Your task to perform on an android device: Open notification settings Image 0: 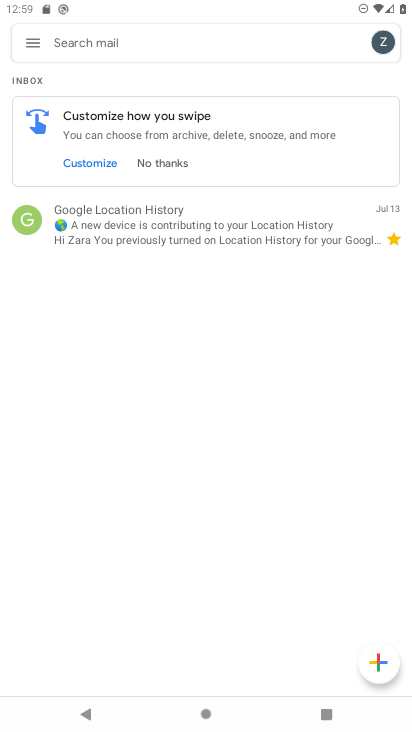
Step 0: press home button
Your task to perform on an android device: Open notification settings Image 1: 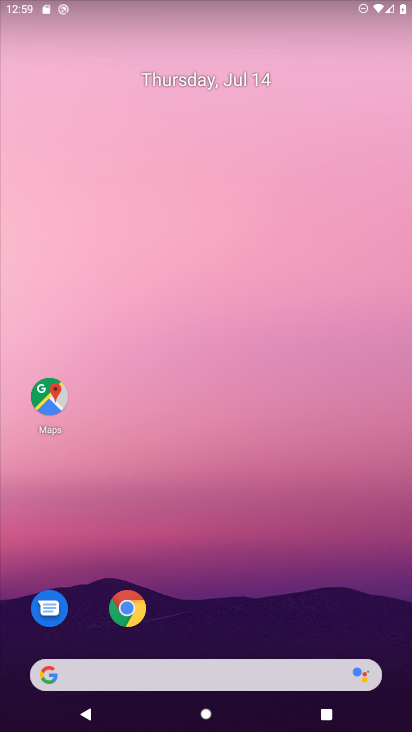
Step 1: drag from (236, 712) to (250, 0)
Your task to perform on an android device: Open notification settings Image 2: 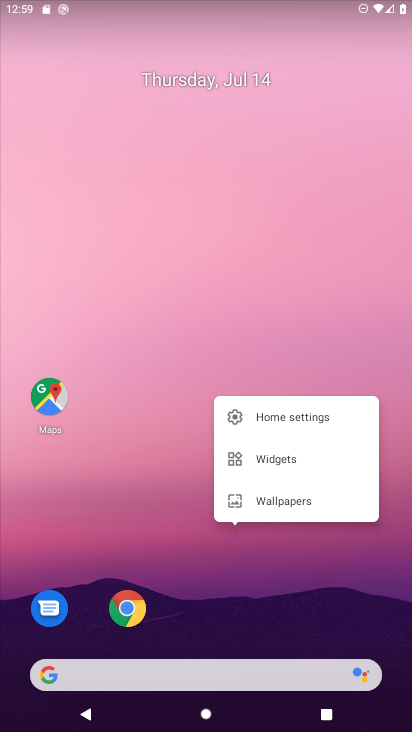
Step 2: click (291, 284)
Your task to perform on an android device: Open notification settings Image 3: 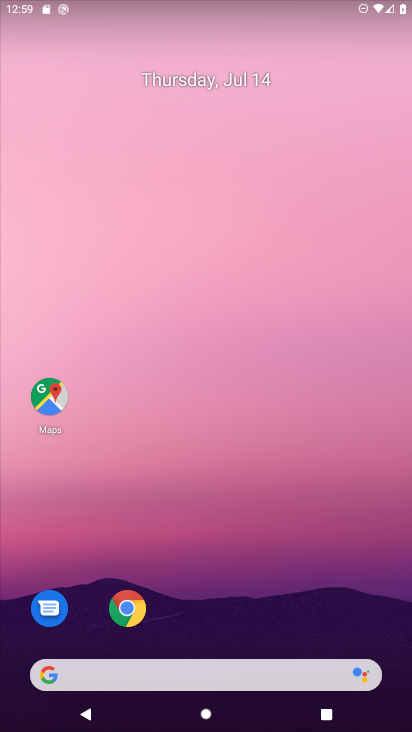
Step 3: drag from (233, 729) to (235, 76)
Your task to perform on an android device: Open notification settings Image 4: 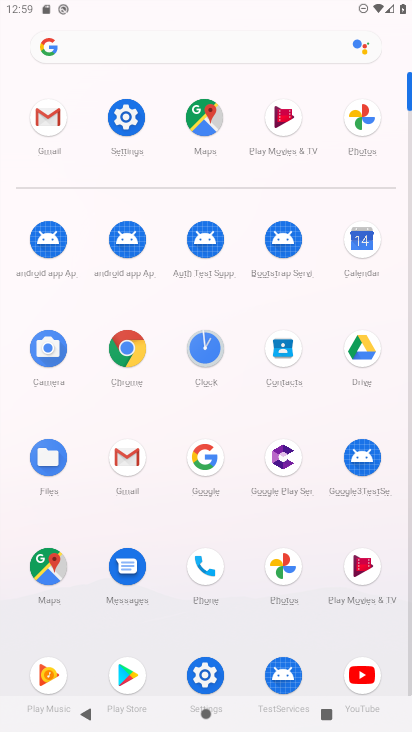
Step 4: click (126, 124)
Your task to perform on an android device: Open notification settings Image 5: 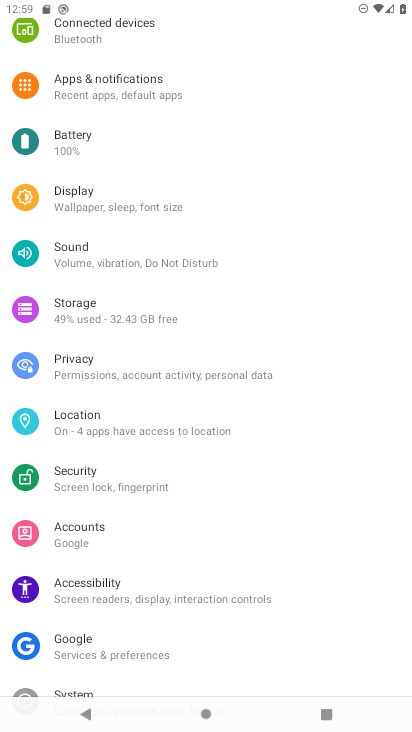
Step 5: click (96, 91)
Your task to perform on an android device: Open notification settings Image 6: 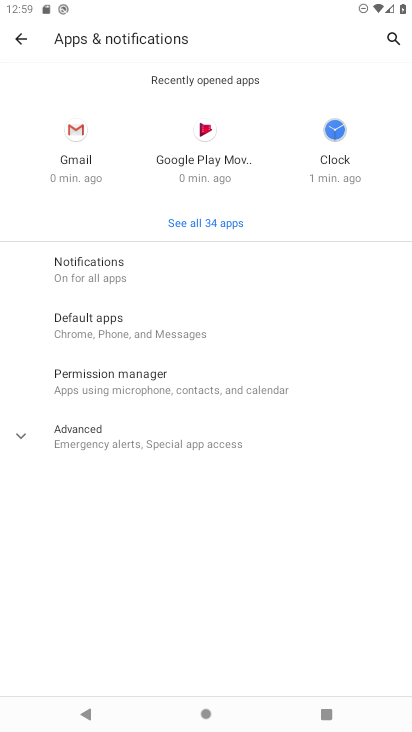
Step 6: click (103, 269)
Your task to perform on an android device: Open notification settings Image 7: 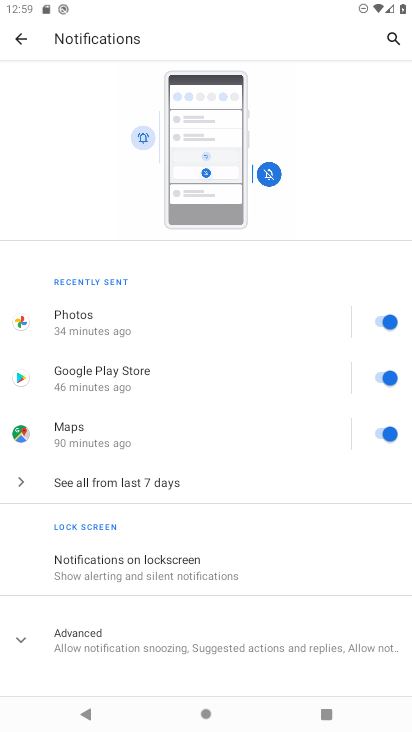
Step 7: task complete